Your task to perform on an android device: Open Yahoo.com Image 0: 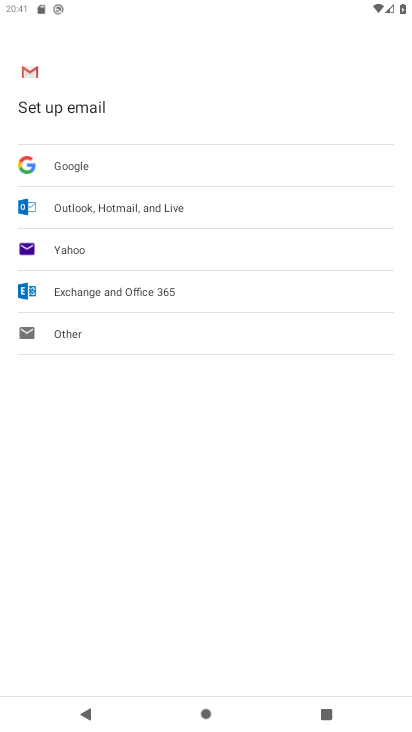
Step 0: press home button
Your task to perform on an android device: Open Yahoo.com Image 1: 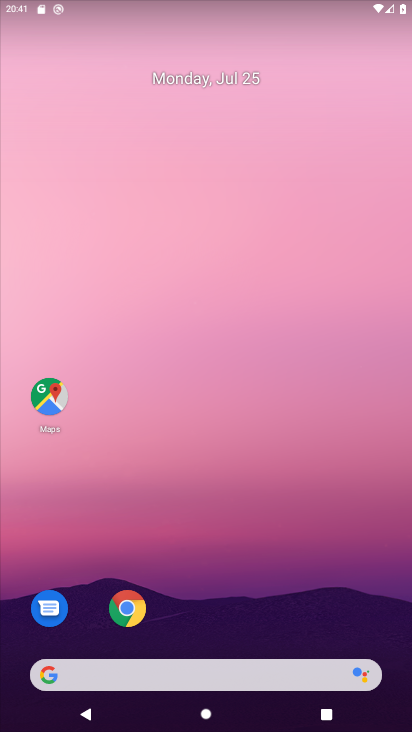
Step 1: click (125, 609)
Your task to perform on an android device: Open Yahoo.com Image 2: 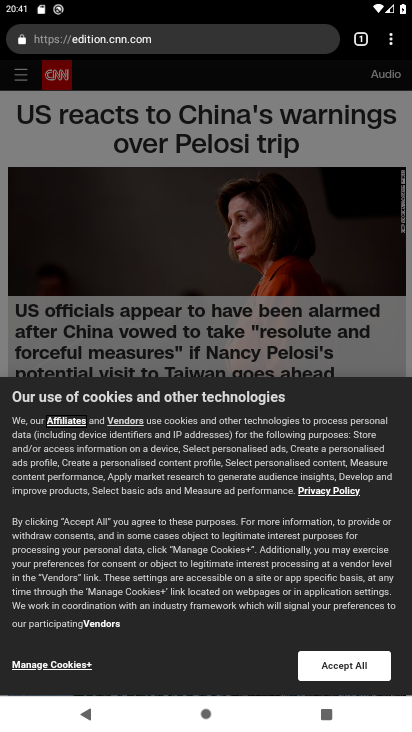
Step 2: click (189, 37)
Your task to perform on an android device: Open Yahoo.com Image 3: 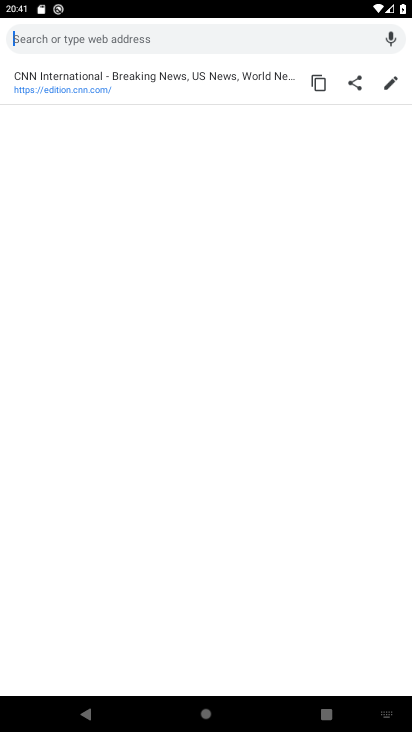
Step 3: type "yahoo.com"
Your task to perform on an android device: Open Yahoo.com Image 4: 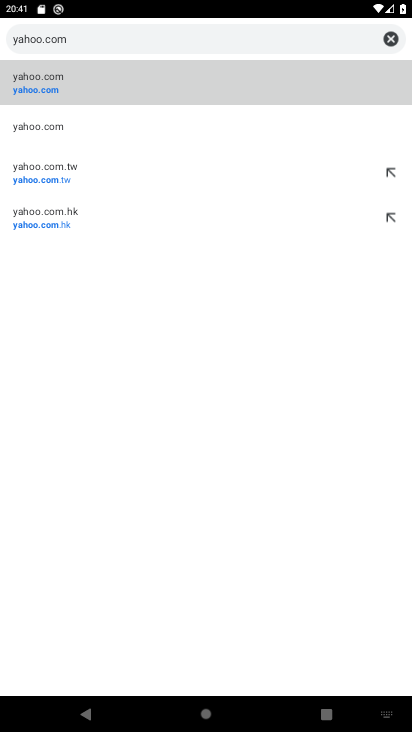
Step 4: click (58, 79)
Your task to perform on an android device: Open Yahoo.com Image 5: 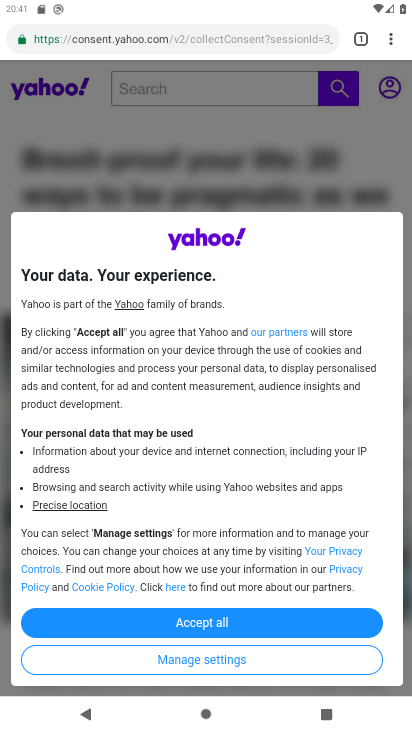
Step 5: task complete